Your task to perform on an android device: Open Chrome and go to the settings page Image 0: 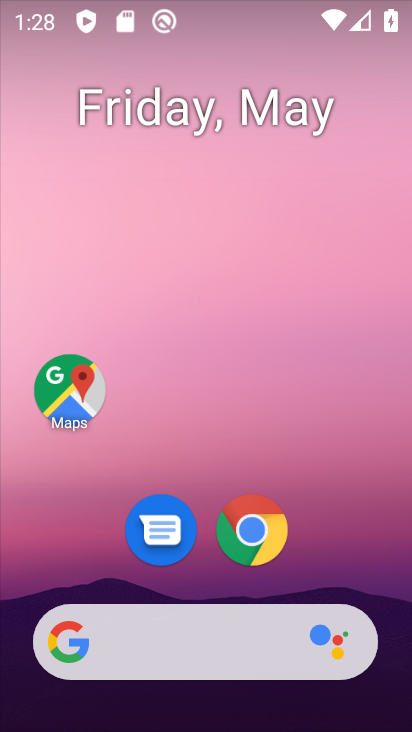
Step 0: click (268, 521)
Your task to perform on an android device: Open Chrome and go to the settings page Image 1: 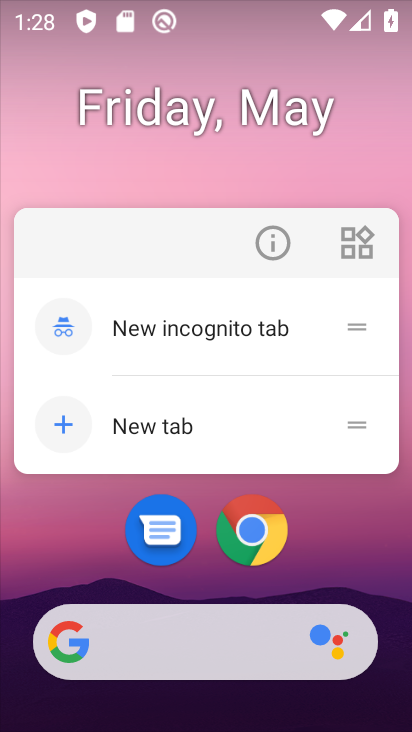
Step 1: click (245, 517)
Your task to perform on an android device: Open Chrome and go to the settings page Image 2: 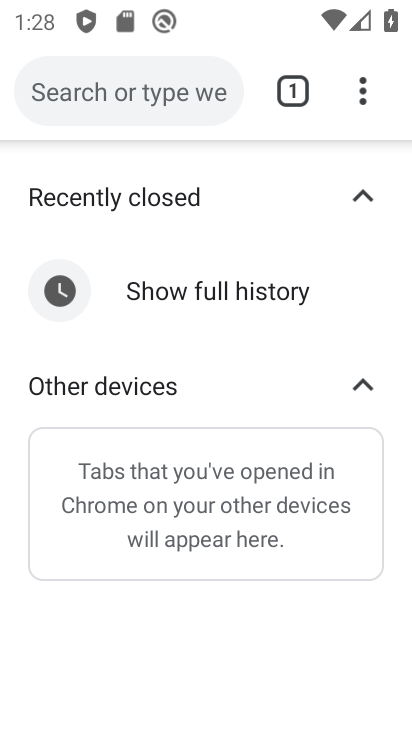
Step 2: click (361, 78)
Your task to perform on an android device: Open Chrome and go to the settings page Image 3: 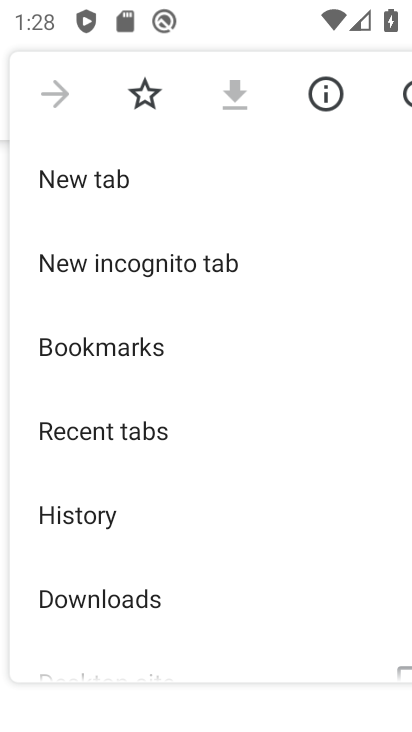
Step 3: drag from (101, 606) to (103, 324)
Your task to perform on an android device: Open Chrome and go to the settings page Image 4: 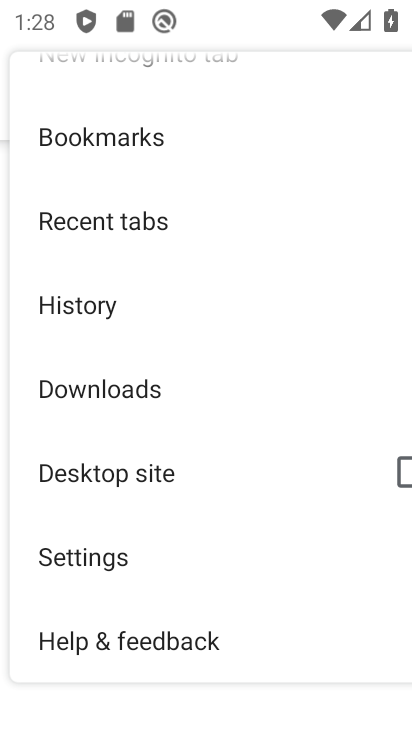
Step 4: click (128, 561)
Your task to perform on an android device: Open Chrome and go to the settings page Image 5: 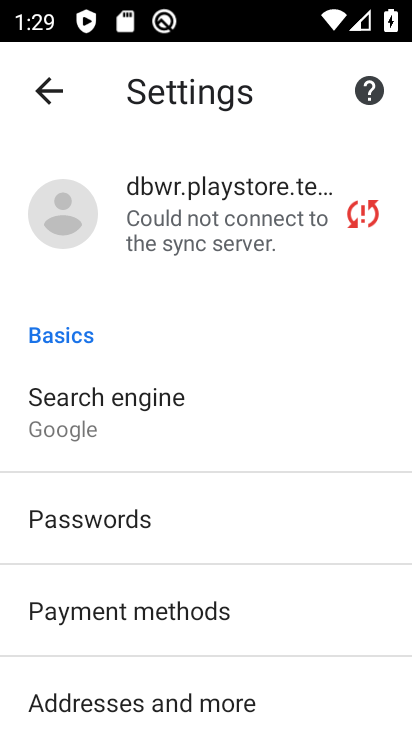
Step 5: task complete